Your task to perform on an android device: open app "Microsoft Outlook" (install if not already installed) Image 0: 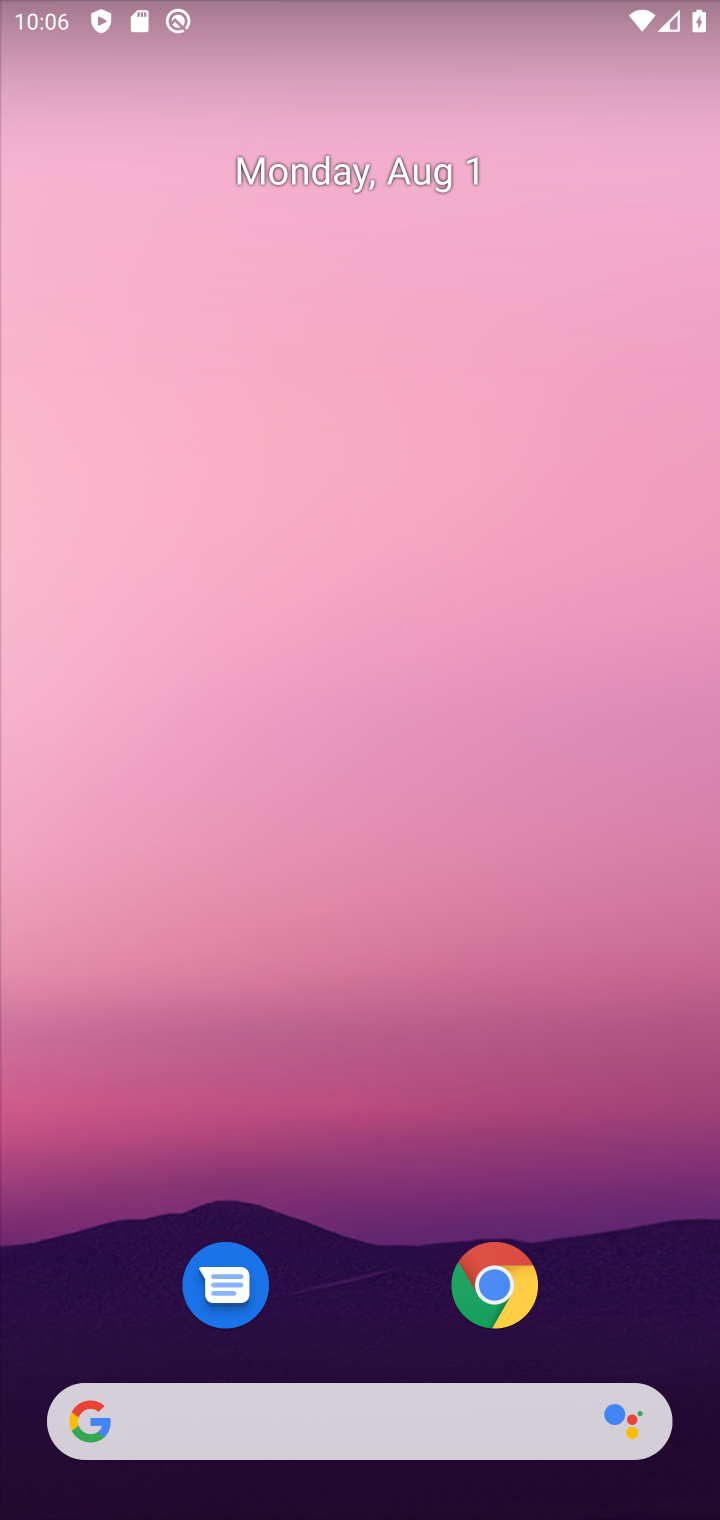
Step 0: drag from (397, 1356) to (565, 26)
Your task to perform on an android device: open app "Microsoft Outlook" (install if not already installed) Image 1: 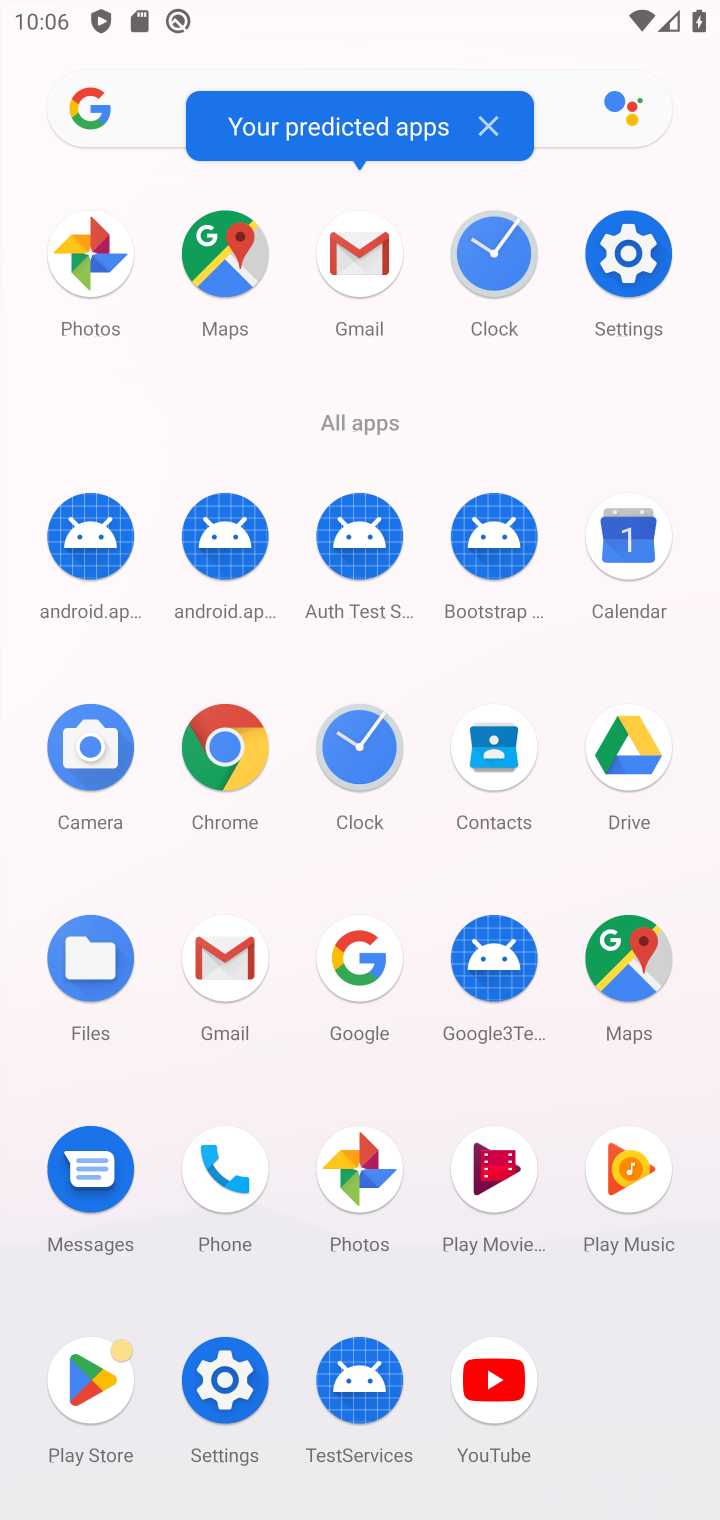
Step 1: click (66, 1386)
Your task to perform on an android device: open app "Microsoft Outlook" (install if not already installed) Image 2: 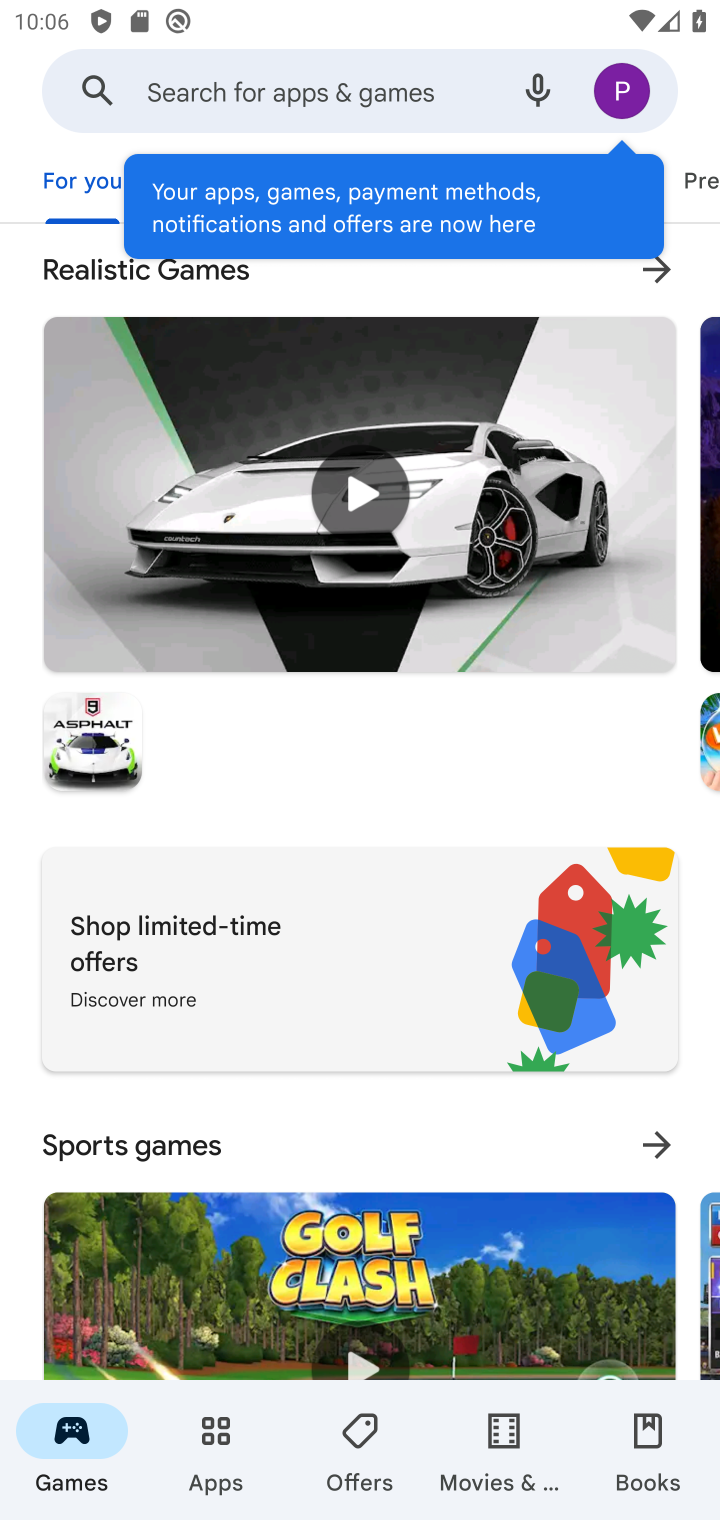
Step 2: click (311, 82)
Your task to perform on an android device: open app "Microsoft Outlook" (install if not already installed) Image 3: 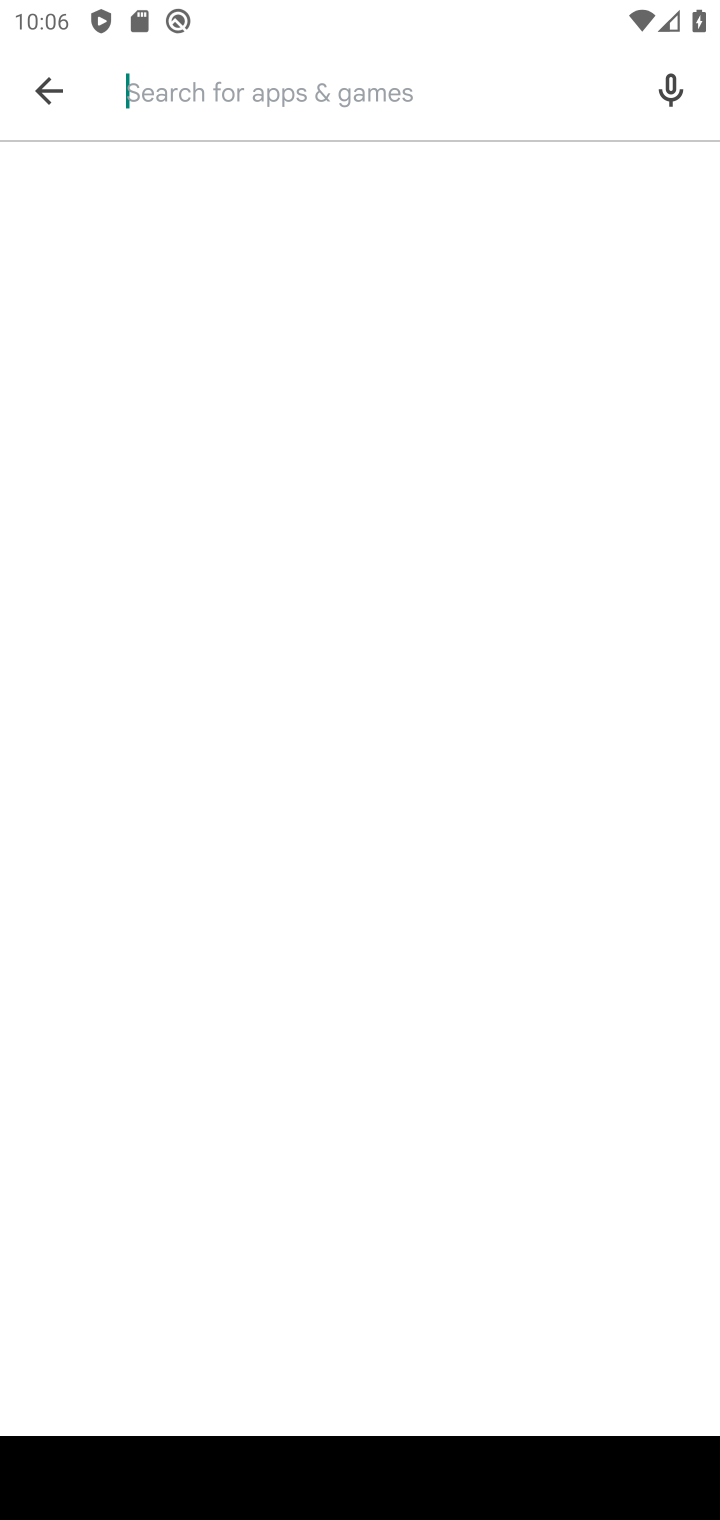
Step 3: type "Microsoft Outlook"
Your task to perform on an android device: open app "Microsoft Outlook" (install if not already installed) Image 4: 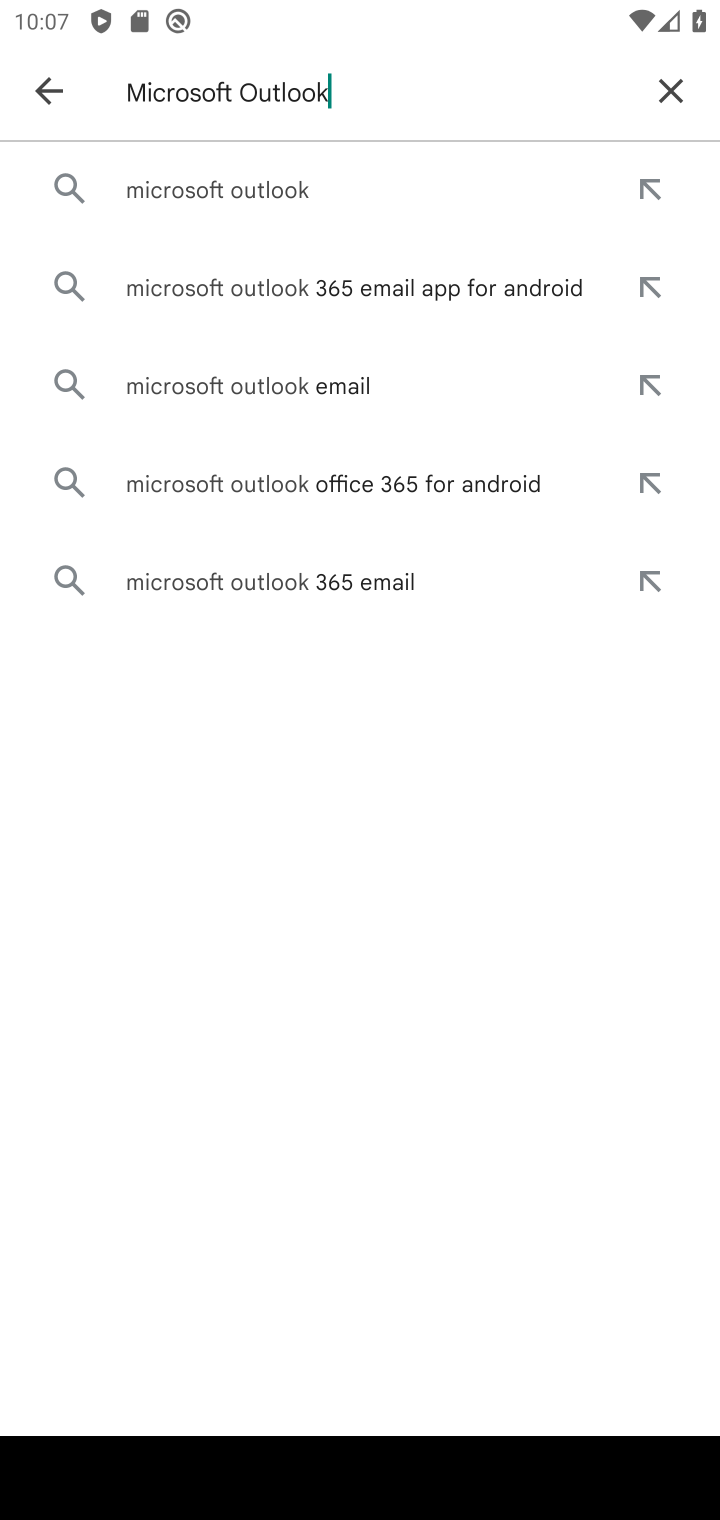
Step 4: click (277, 200)
Your task to perform on an android device: open app "Microsoft Outlook" (install if not already installed) Image 5: 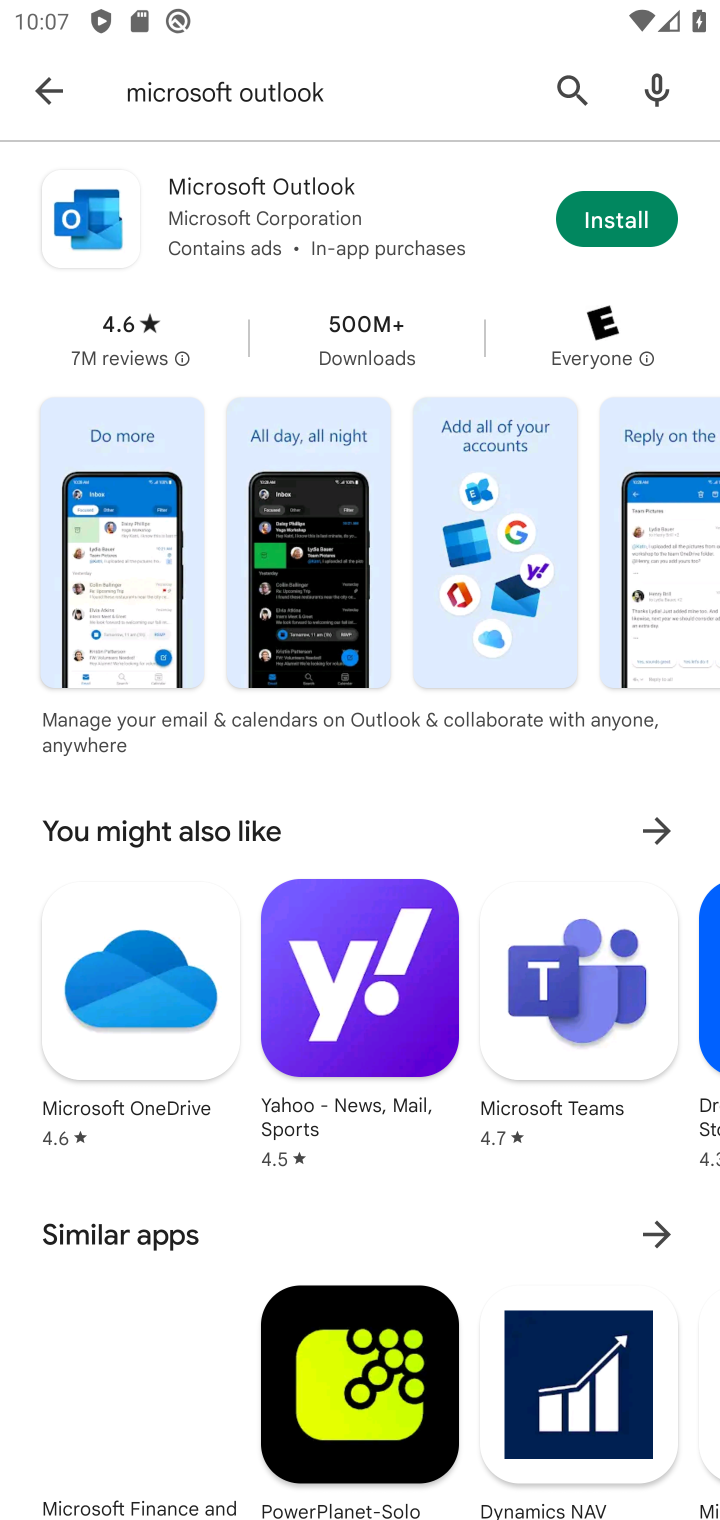
Step 5: click (594, 221)
Your task to perform on an android device: open app "Microsoft Outlook" (install if not already installed) Image 6: 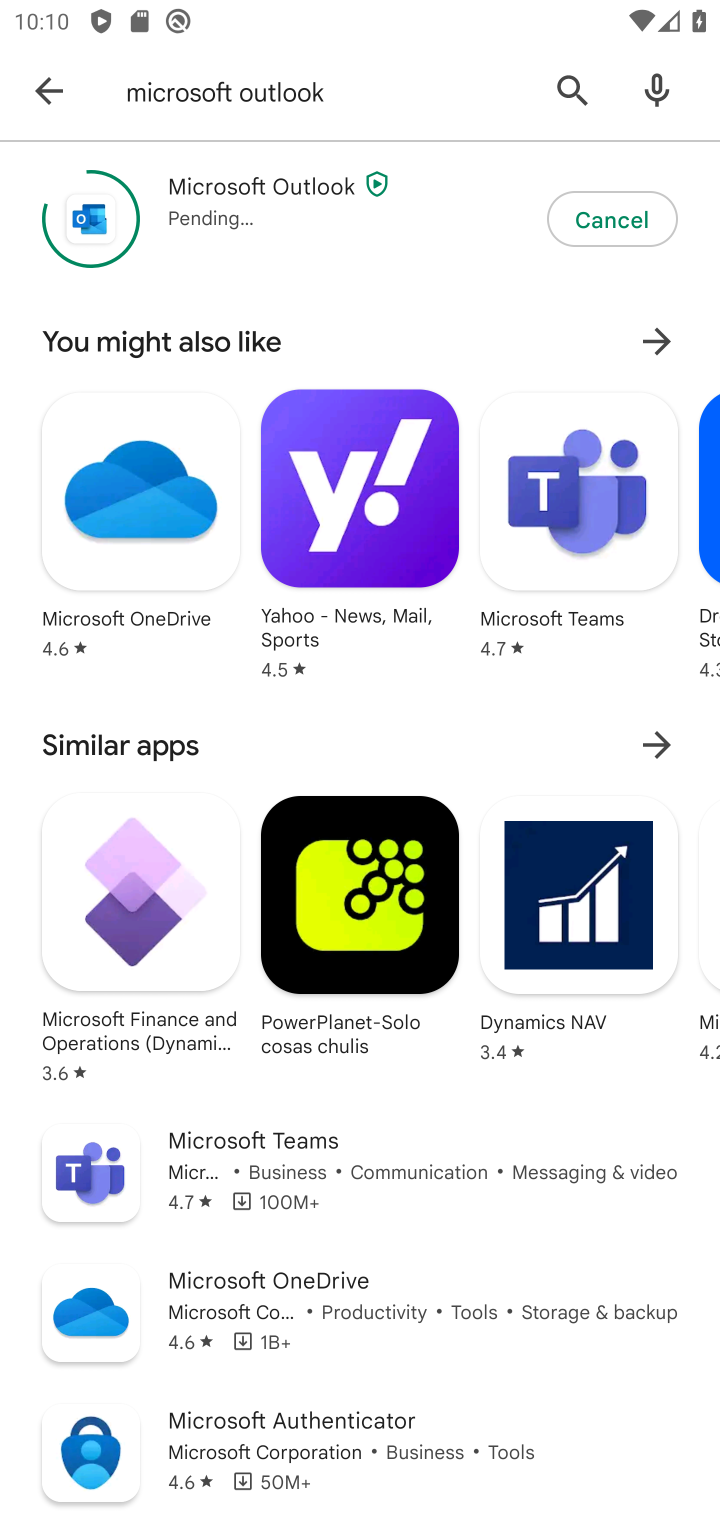
Step 6: task complete